Your task to perform on an android device: turn on data saver in the chrome app Image 0: 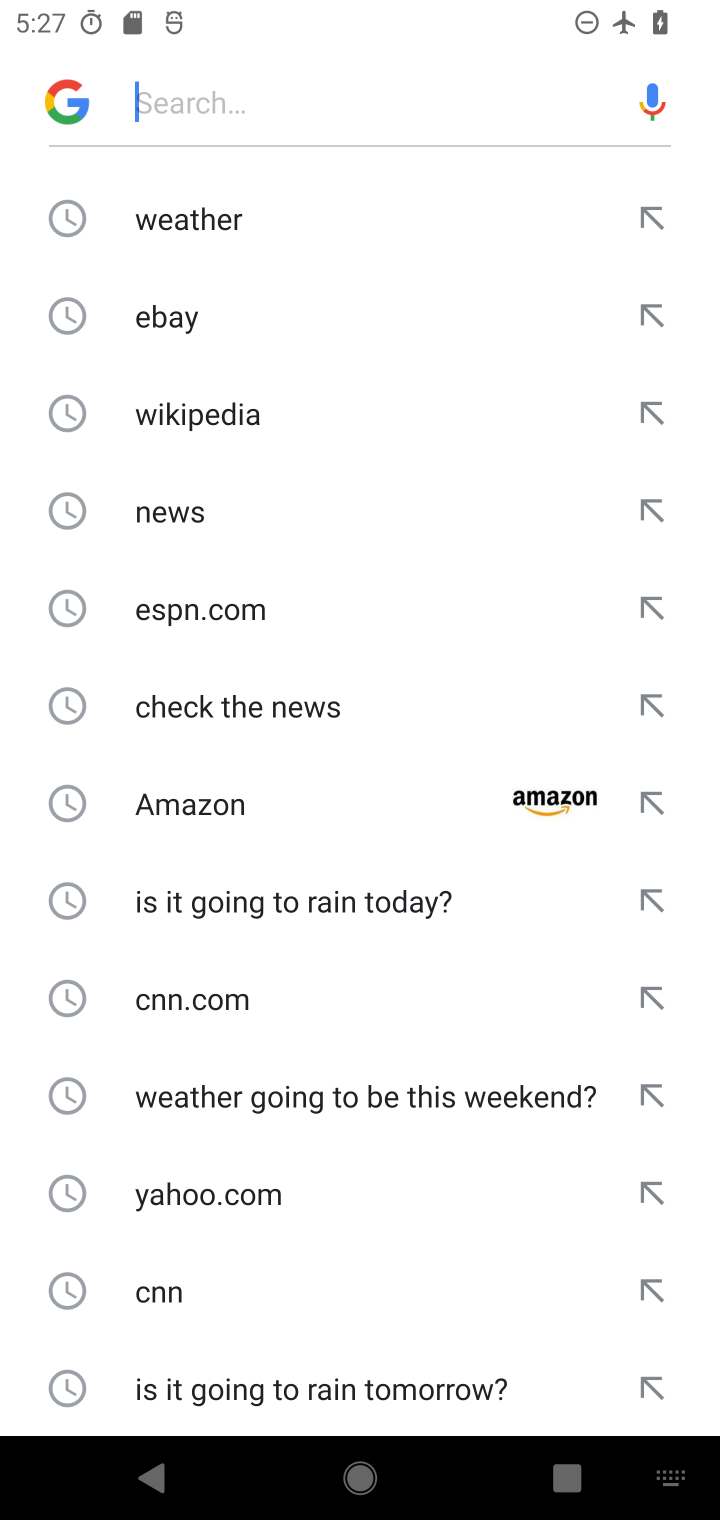
Step 0: press home button
Your task to perform on an android device: turn on data saver in the chrome app Image 1: 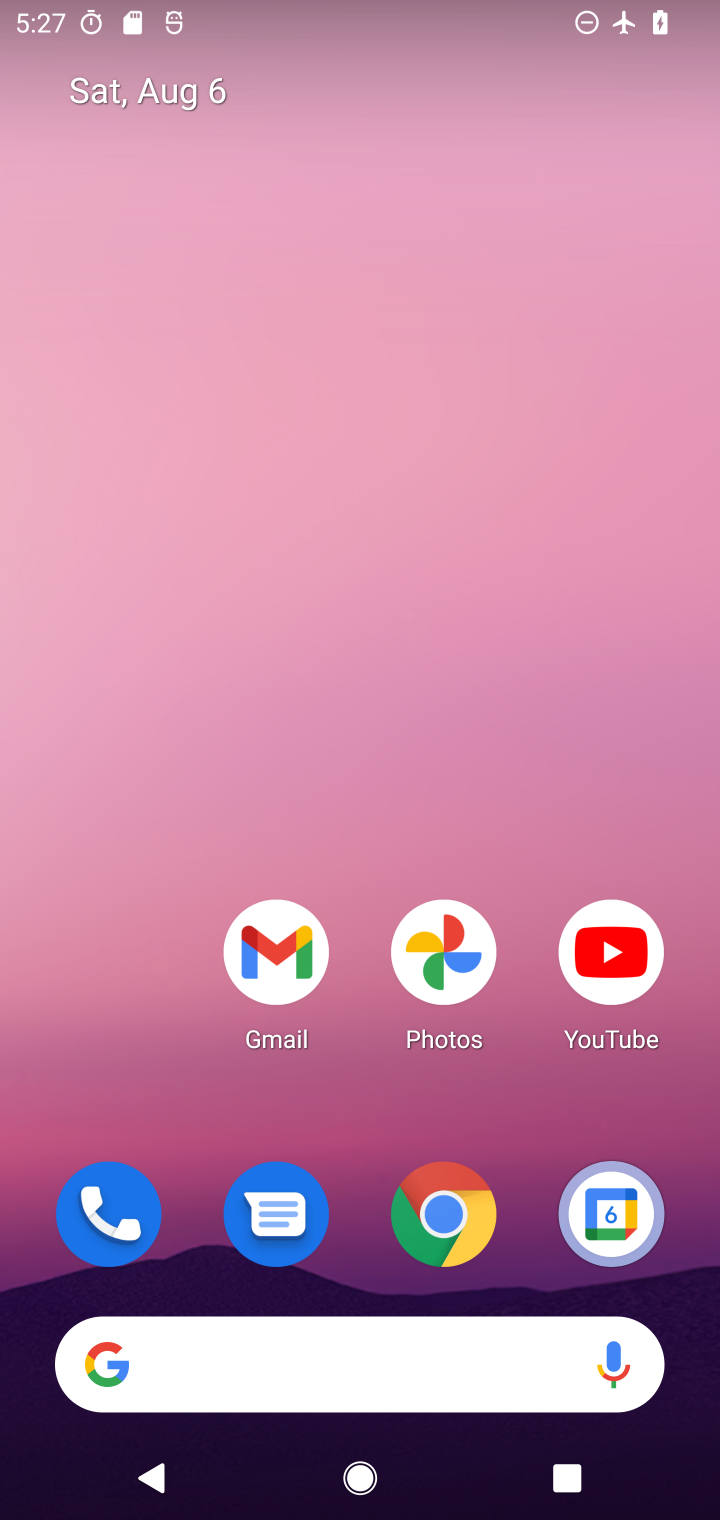
Step 1: click (444, 1232)
Your task to perform on an android device: turn on data saver in the chrome app Image 2: 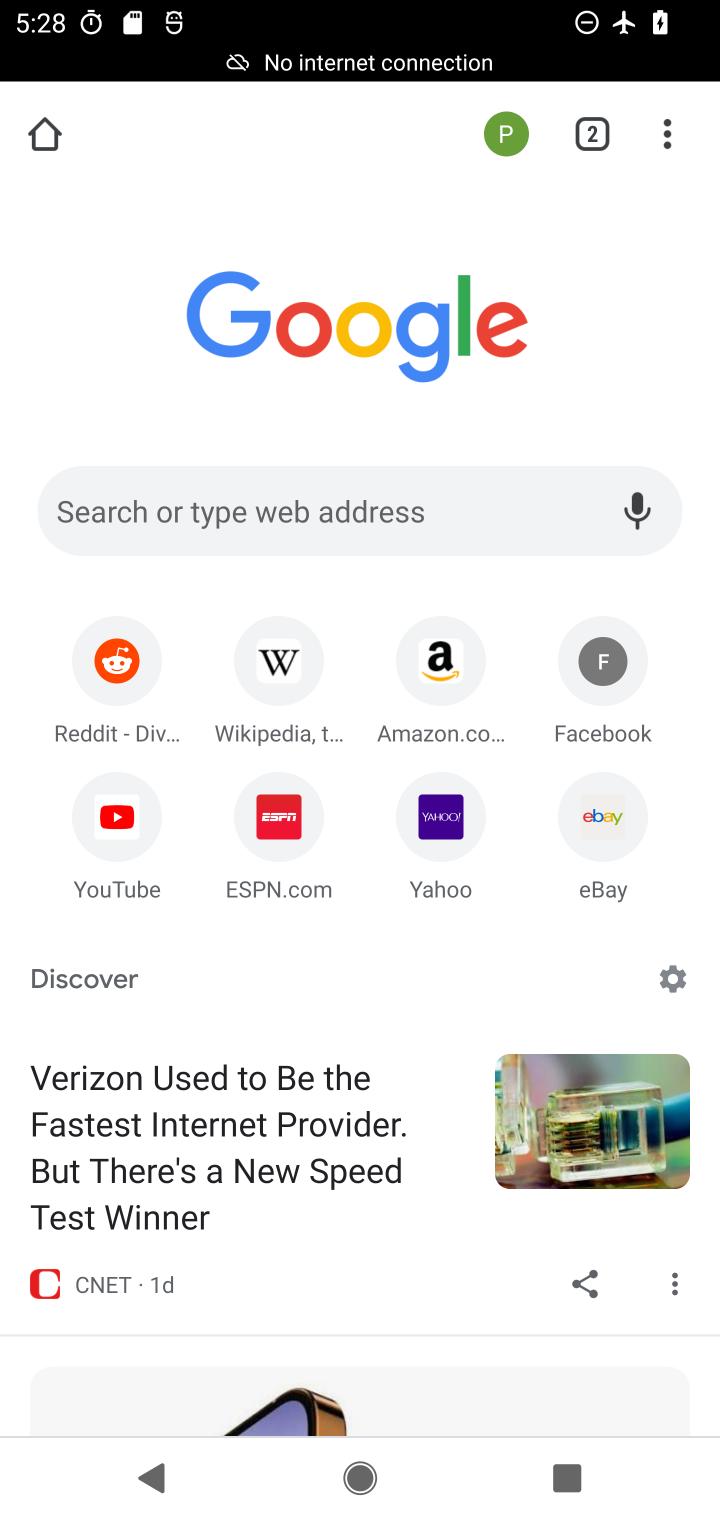
Step 2: click (663, 141)
Your task to perform on an android device: turn on data saver in the chrome app Image 3: 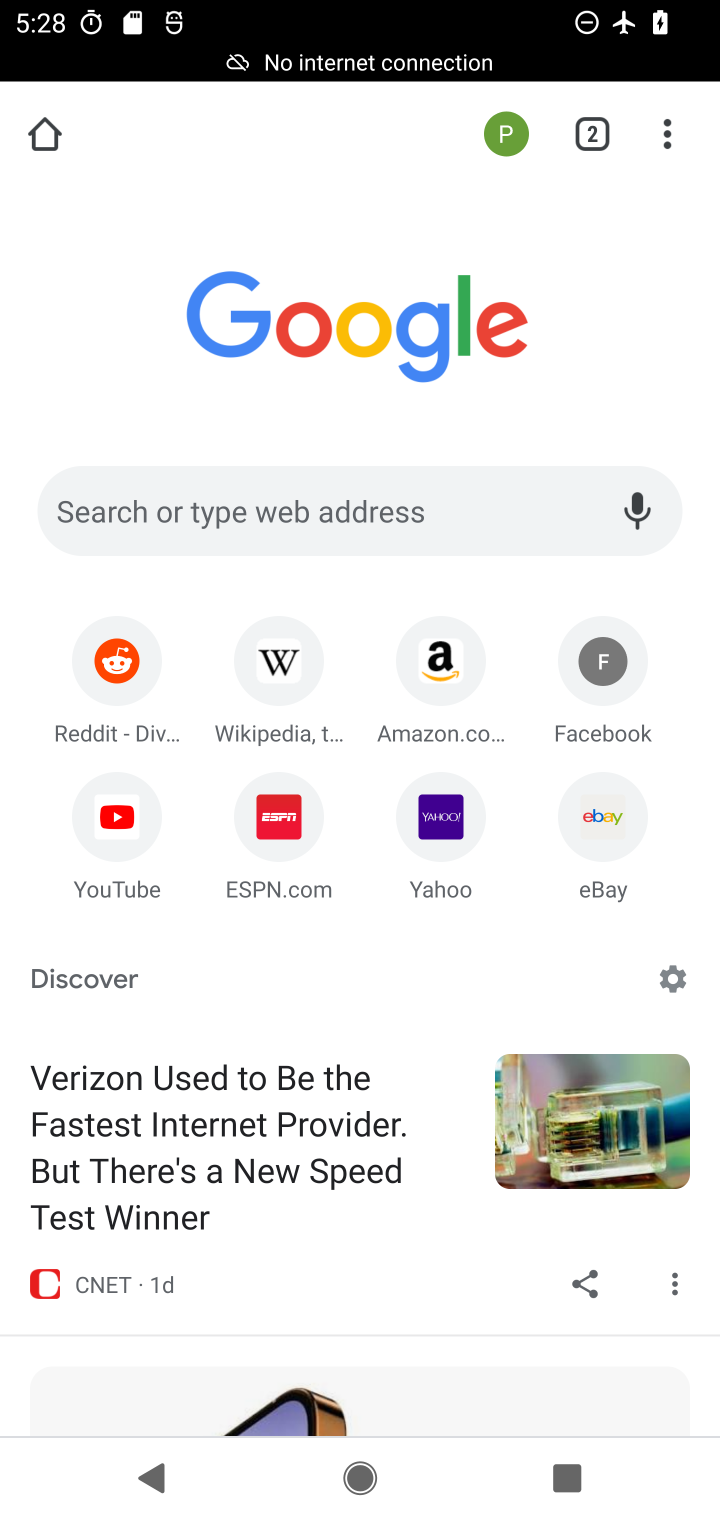
Step 3: click (670, 141)
Your task to perform on an android device: turn on data saver in the chrome app Image 4: 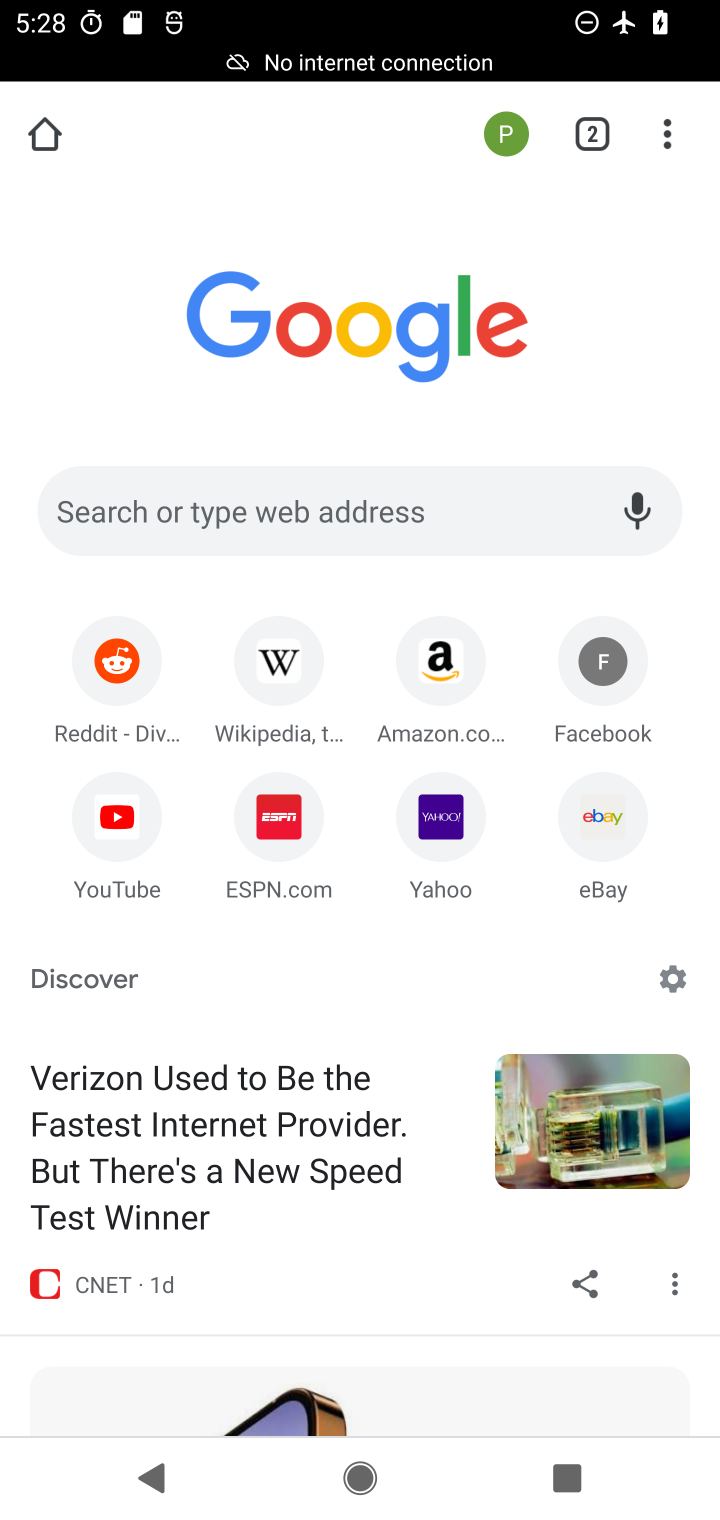
Step 4: click (670, 141)
Your task to perform on an android device: turn on data saver in the chrome app Image 5: 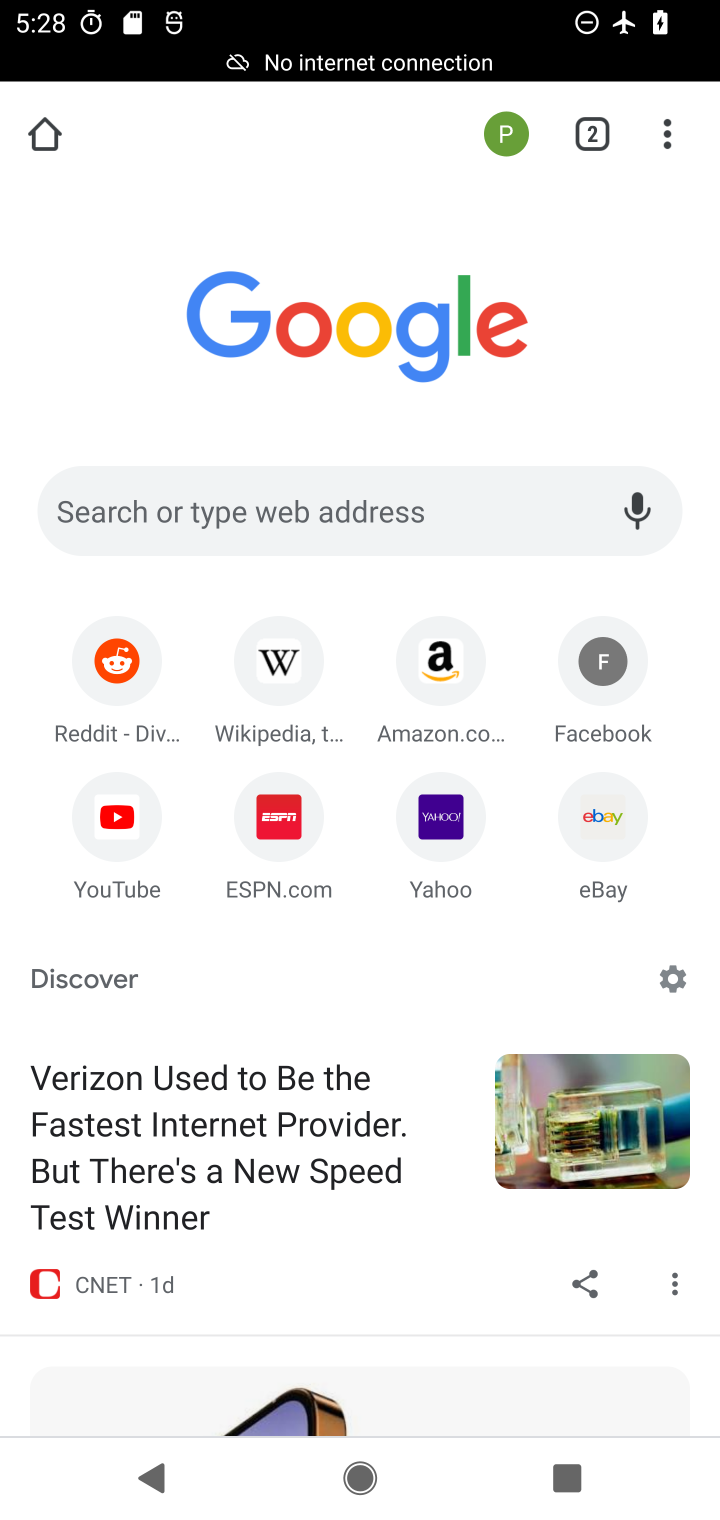
Step 5: click (662, 120)
Your task to perform on an android device: turn on data saver in the chrome app Image 6: 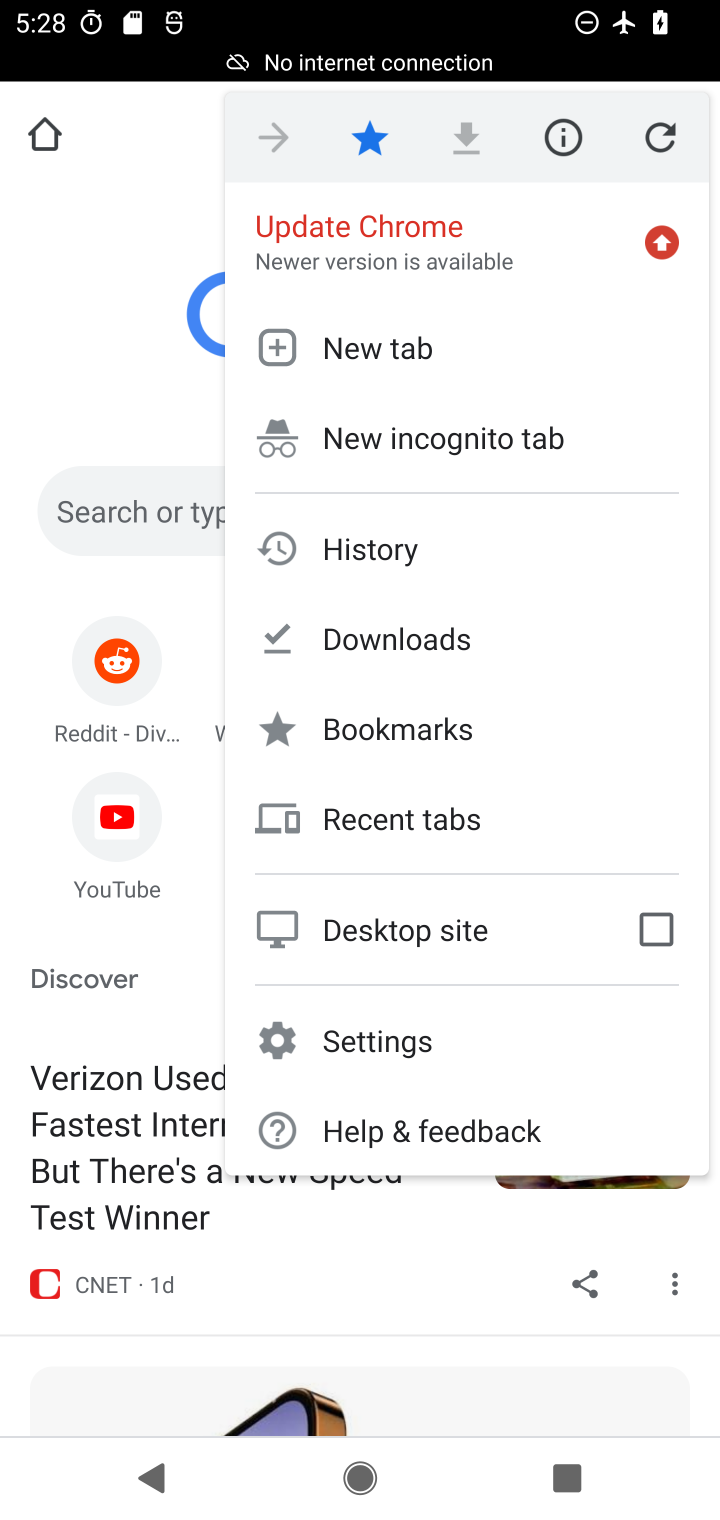
Step 6: click (350, 1040)
Your task to perform on an android device: turn on data saver in the chrome app Image 7: 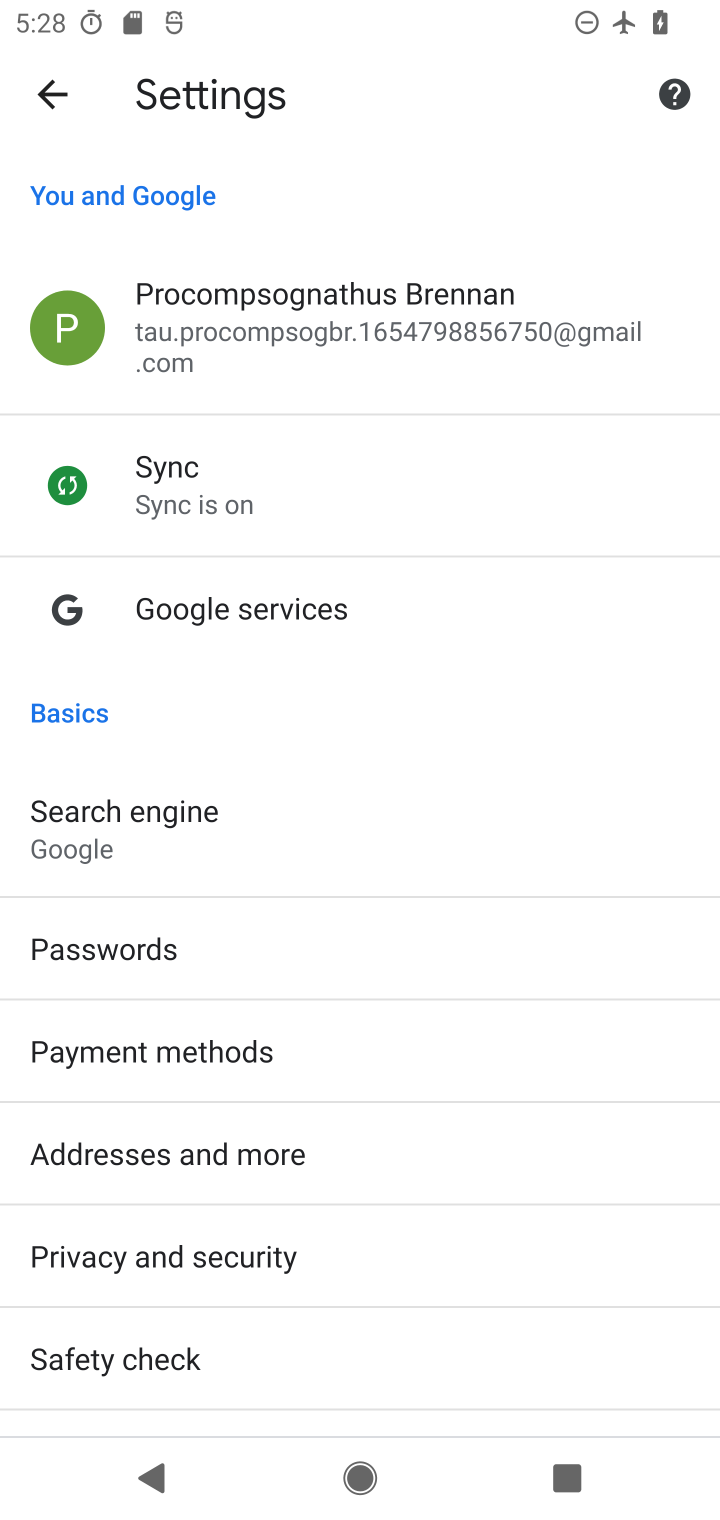
Step 7: drag from (212, 1116) to (200, 649)
Your task to perform on an android device: turn on data saver in the chrome app Image 8: 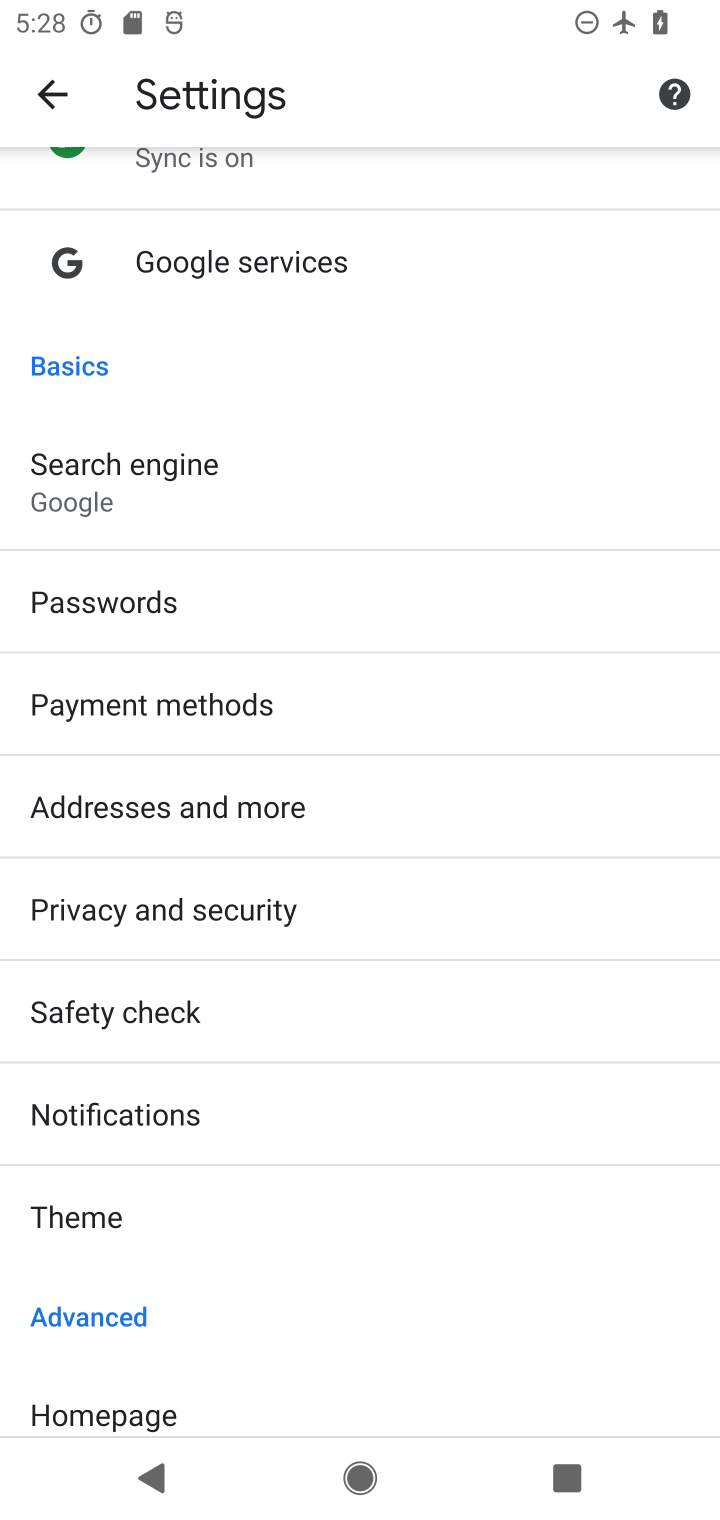
Step 8: drag from (227, 1238) to (244, 842)
Your task to perform on an android device: turn on data saver in the chrome app Image 9: 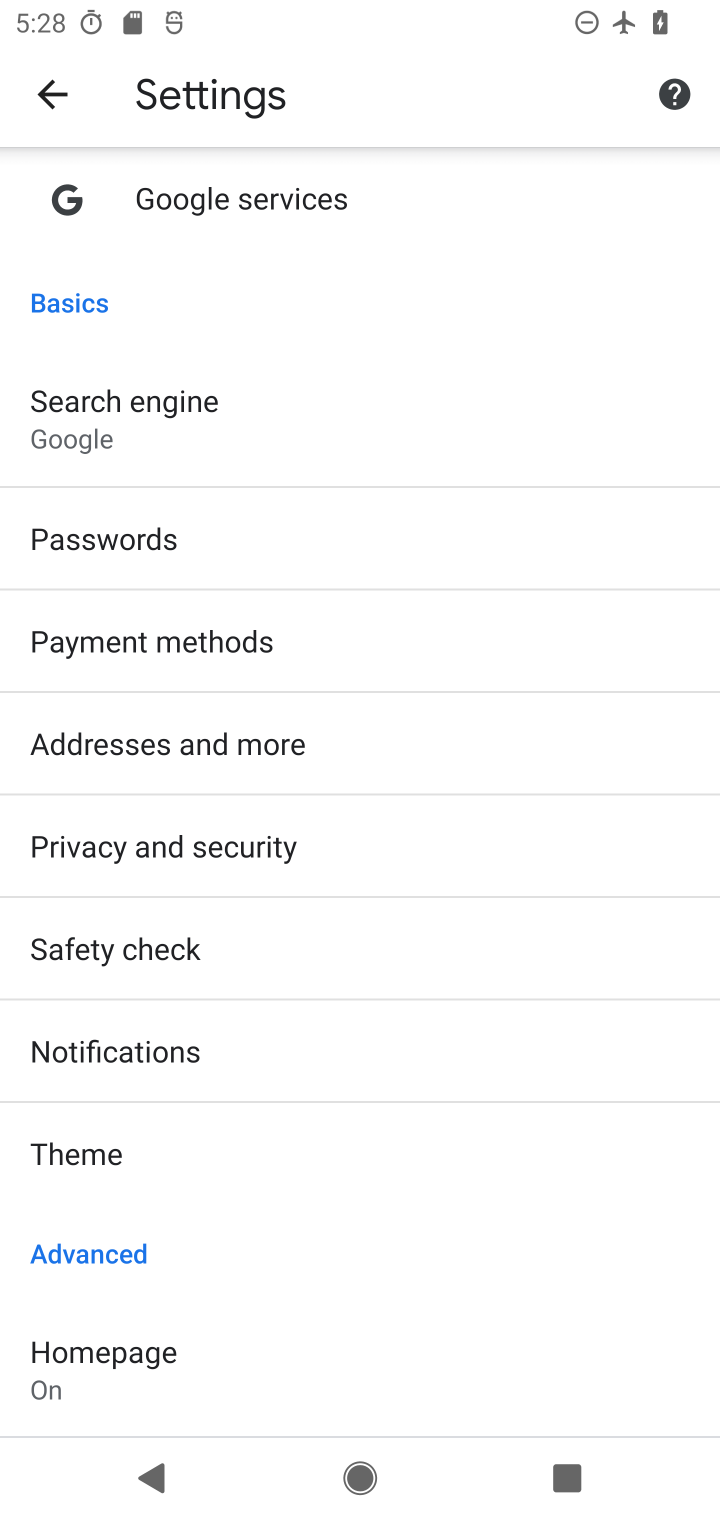
Step 9: drag from (307, 1286) to (311, 530)
Your task to perform on an android device: turn on data saver in the chrome app Image 10: 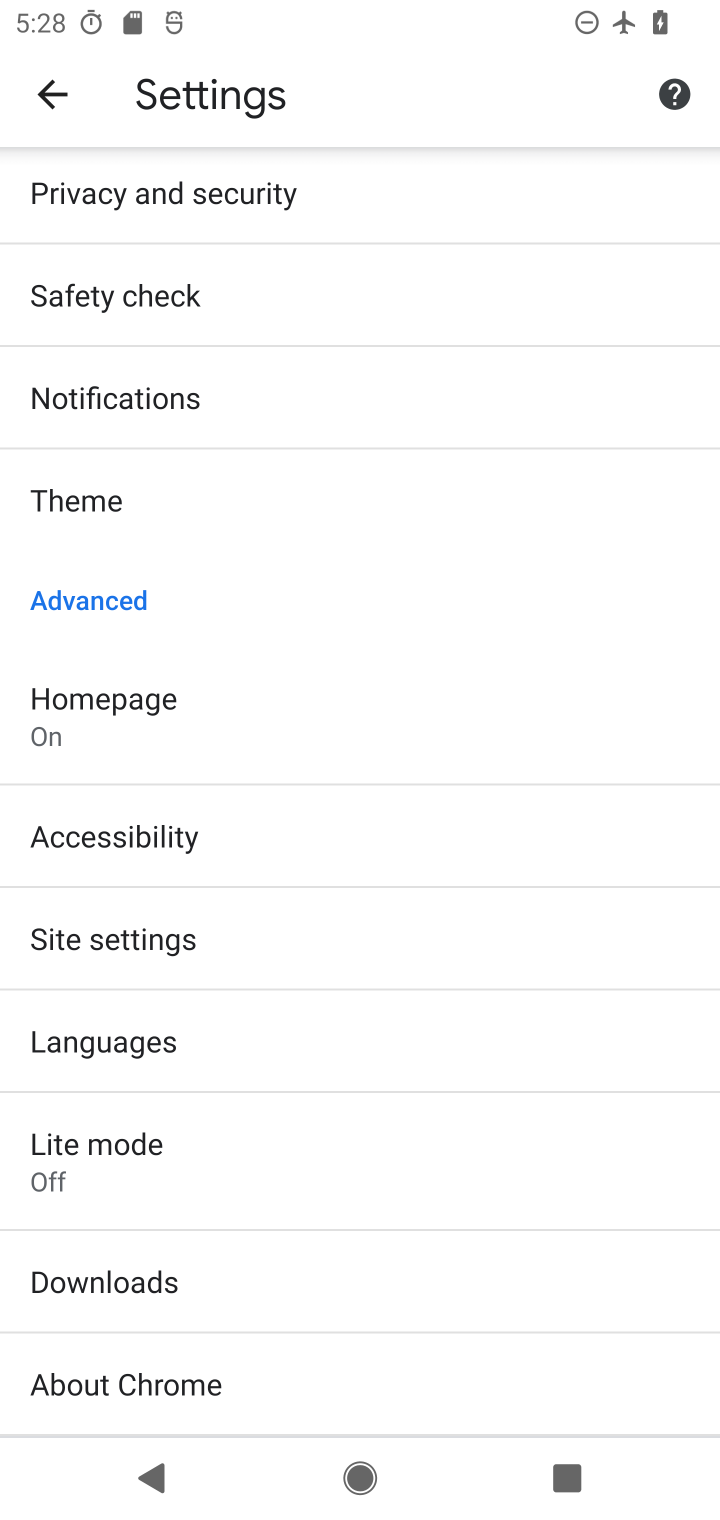
Step 10: click (183, 1192)
Your task to perform on an android device: turn on data saver in the chrome app Image 11: 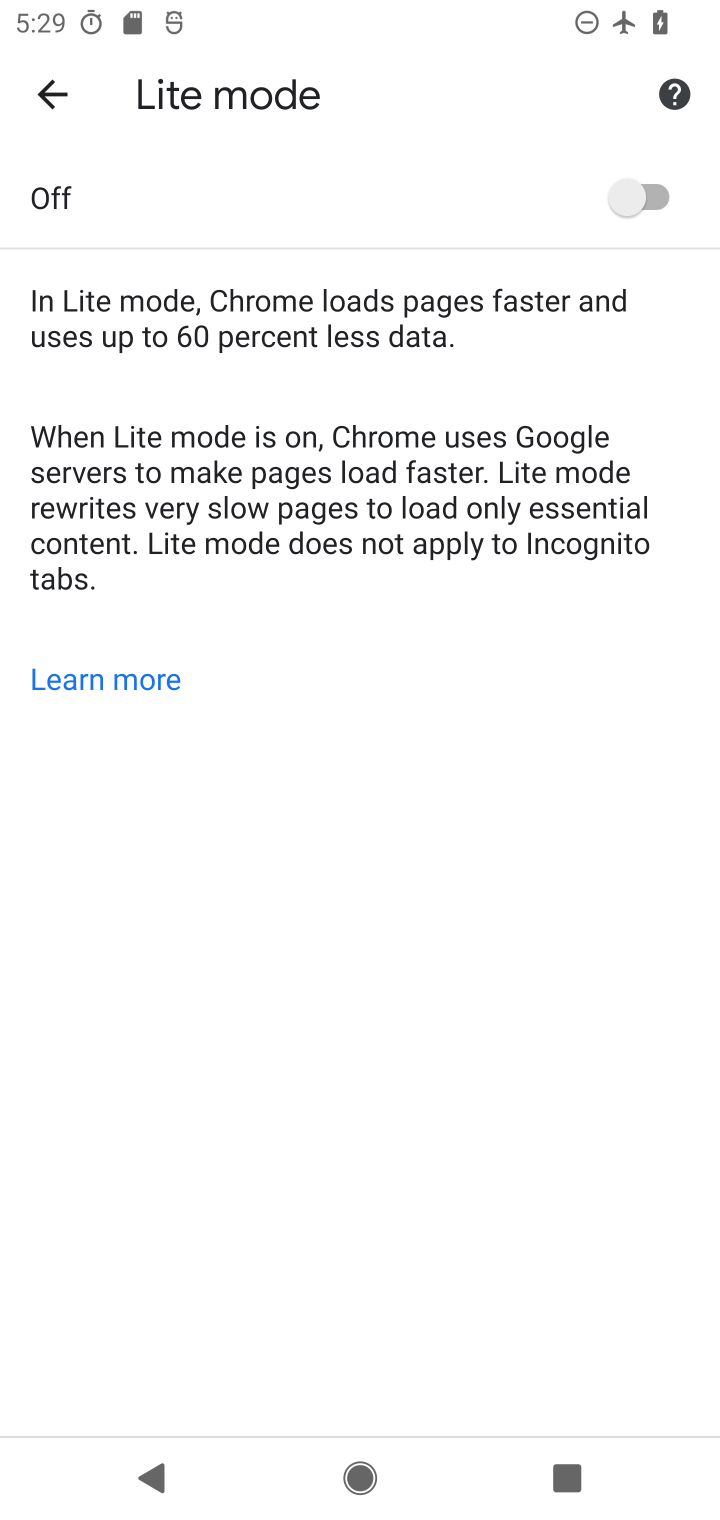
Step 11: click (674, 195)
Your task to perform on an android device: turn on data saver in the chrome app Image 12: 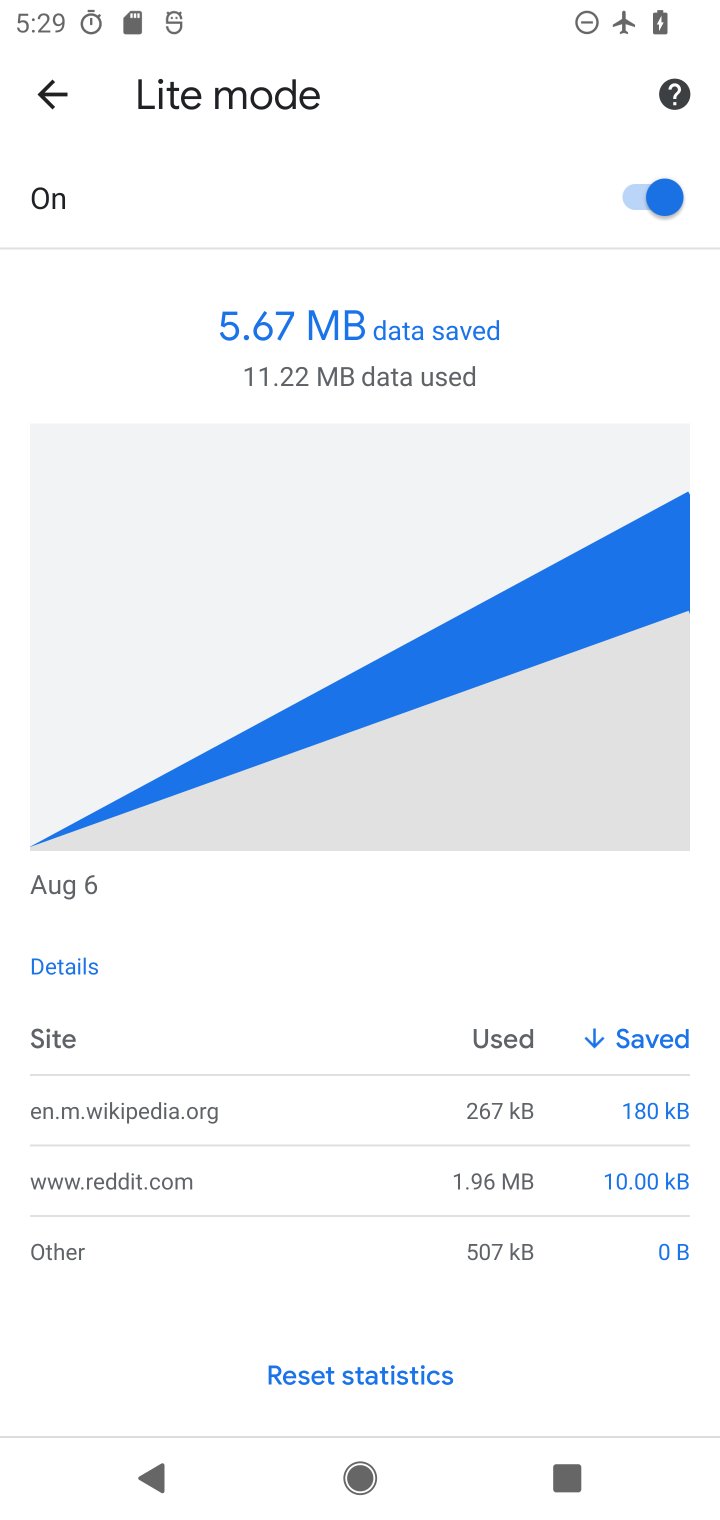
Step 12: task complete